Your task to perform on an android device: Open location settings Image 0: 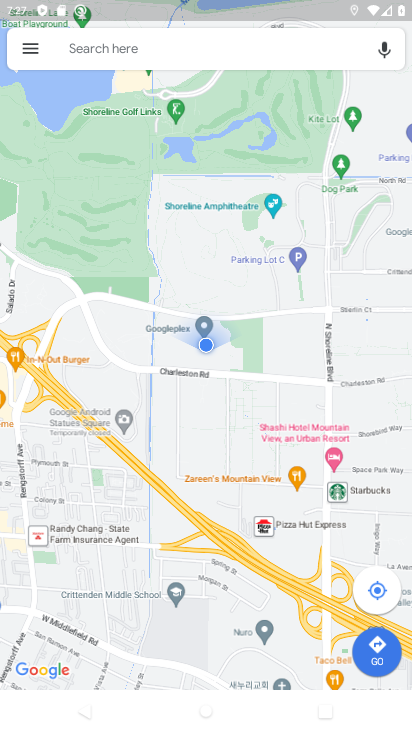
Step 0: press home button
Your task to perform on an android device: Open location settings Image 1: 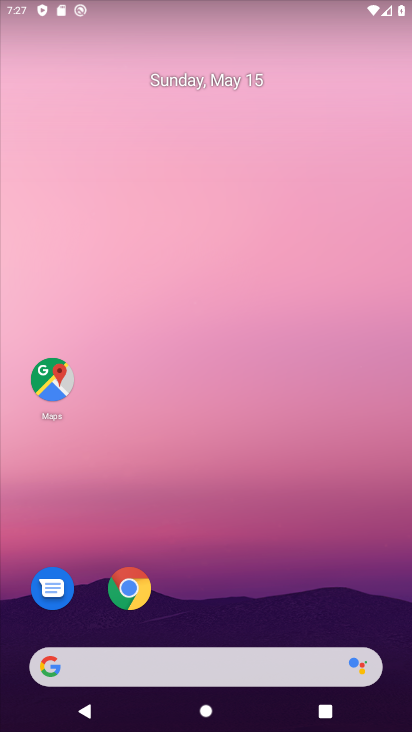
Step 1: drag from (295, 597) to (257, 207)
Your task to perform on an android device: Open location settings Image 2: 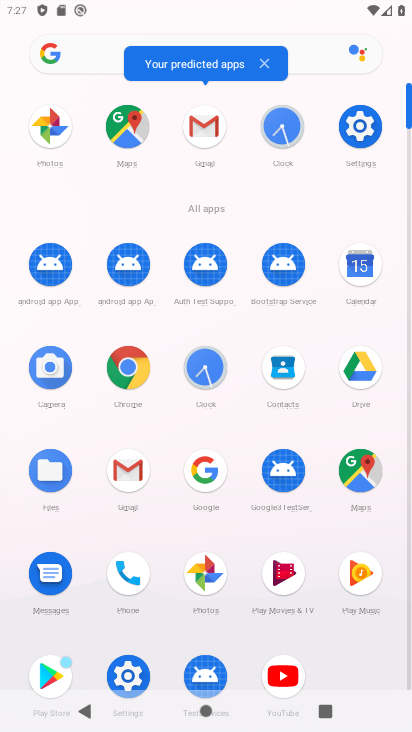
Step 2: click (117, 669)
Your task to perform on an android device: Open location settings Image 3: 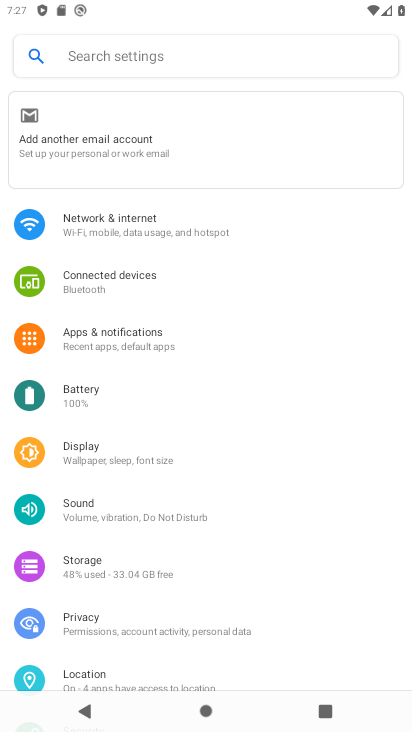
Step 3: click (132, 683)
Your task to perform on an android device: Open location settings Image 4: 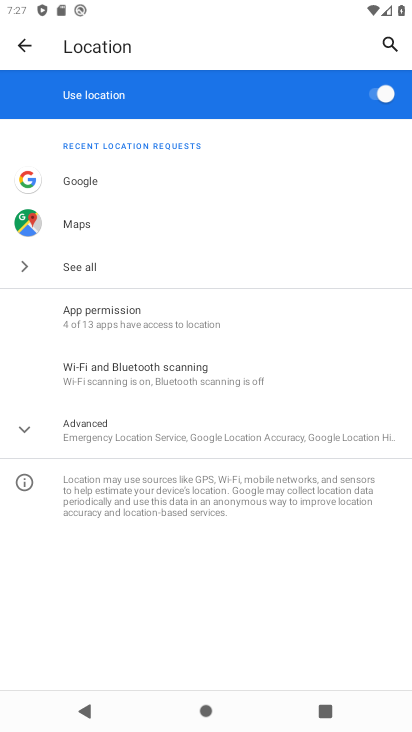
Step 4: task complete